Your task to perform on an android device: toggle sleep mode Image 0: 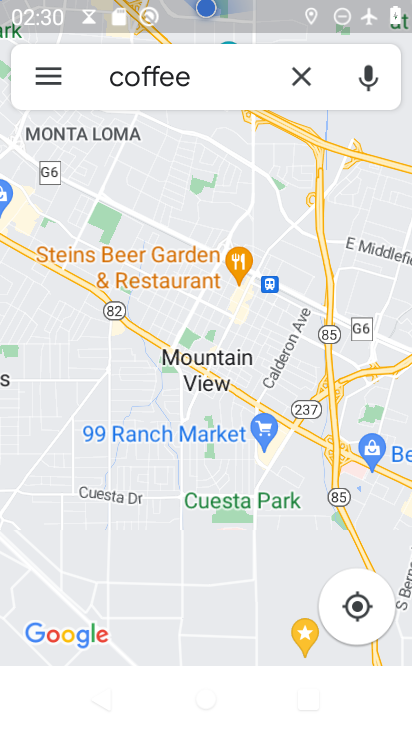
Step 0: press home button
Your task to perform on an android device: toggle sleep mode Image 1: 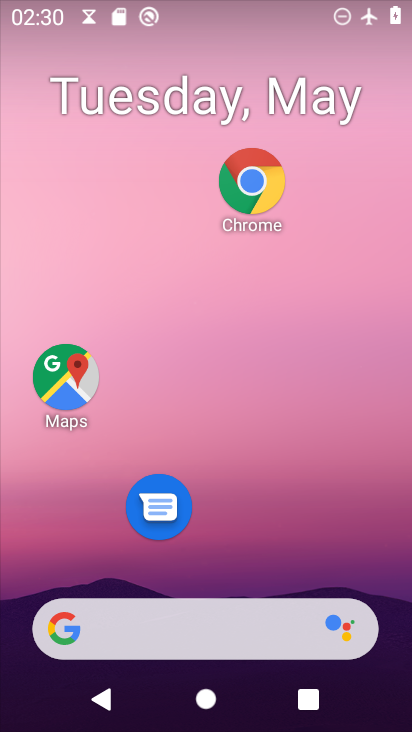
Step 1: drag from (266, 500) to (313, 123)
Your task to perform on an android device: toggle sleep mode Image 2: 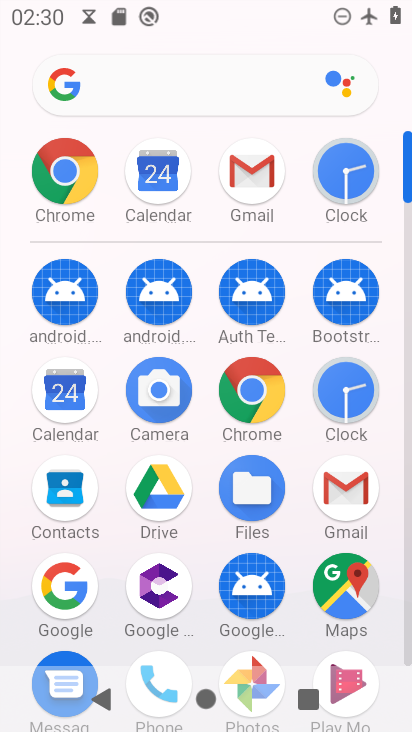
Step 2: drag from (292, 520) to (348, 164)
Your task to perform on an android device: toggle sleep mode Image 3: 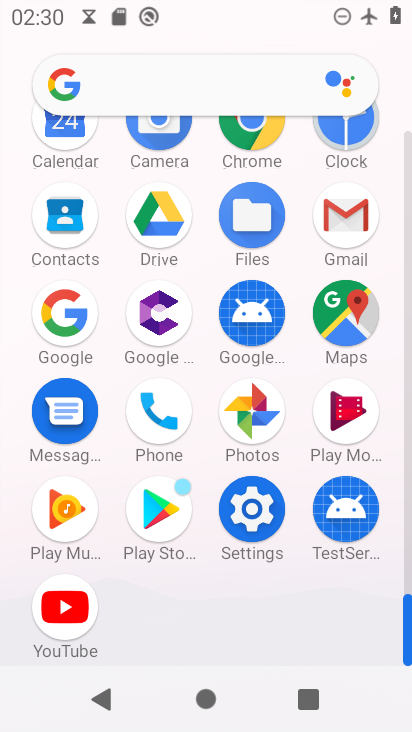
Step 3: click (251, 522)
Your task to perform on an android device: toggle sleep mode Image 4: 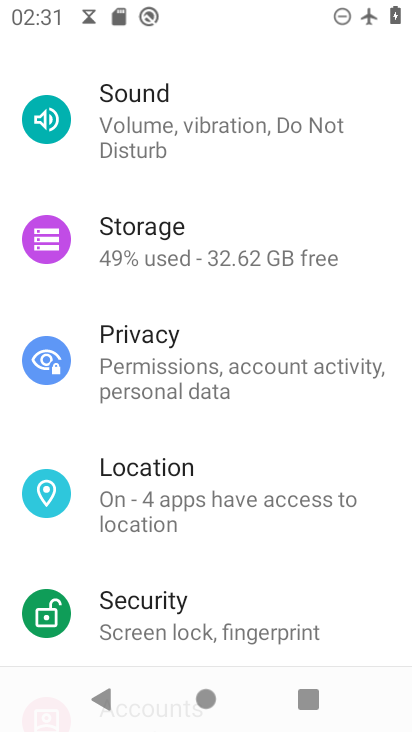
Step 4: task complete